Your task to perform on an android device: Show me popular games on the Play Store Image 0: 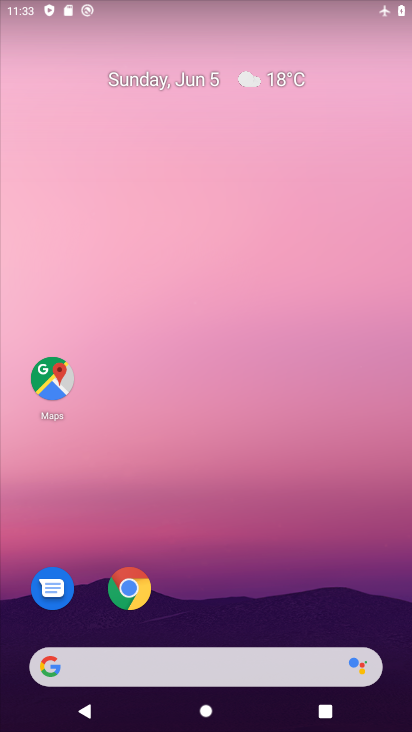
Step 0: drag from (224, 636) to (197, 291)
Your task to perform on an android device: Show me popular games on the Play Store Image 1: 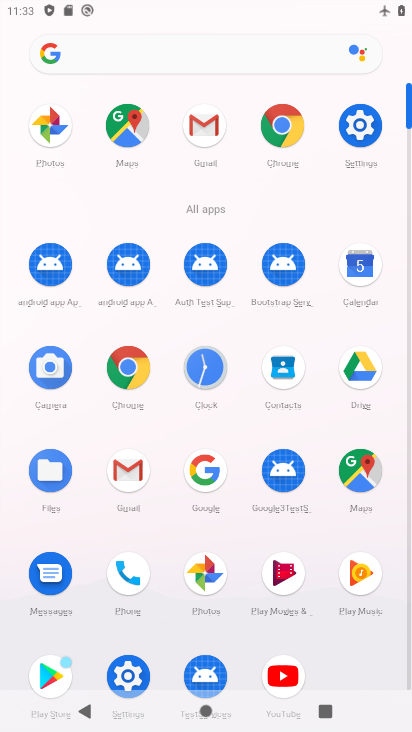
Step 1: click (59, 671)
Your task to perform on an android device: Show me popular games on the Play Store Image 2: 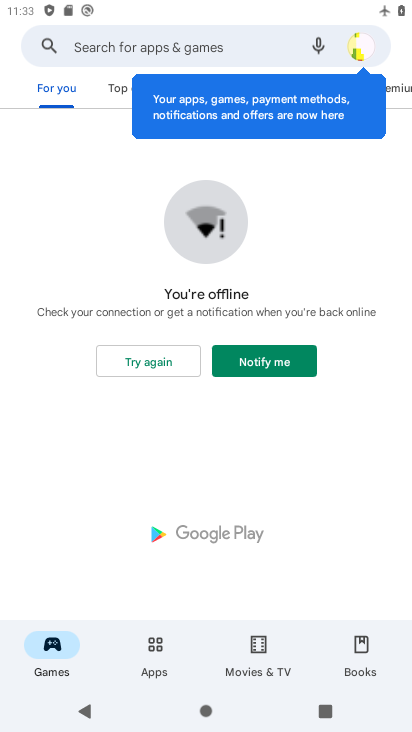
Step 2: task complete